Your task to perform on an android device: change the clock display to digital Image 0: 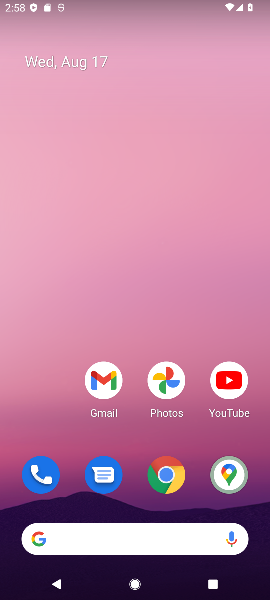
Step 0: drag from (127, 504) to (38, 12)
Your task to perform on an android device: change the clock display to digital Image 1: 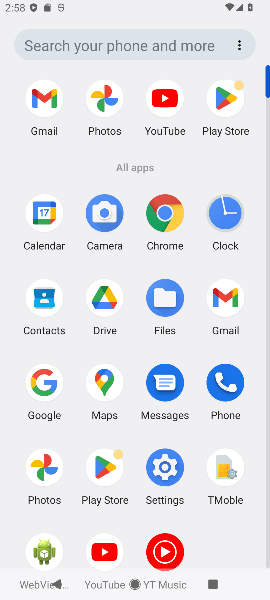
Step 1: click (225, 205)
Your task to perform on an android device: change the clock display to digital Image 2: 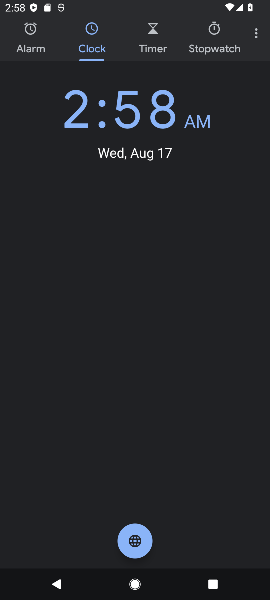
Step 2: click (252, 31)
Your task to perform on an android device: change the clock display to digital Image 3: 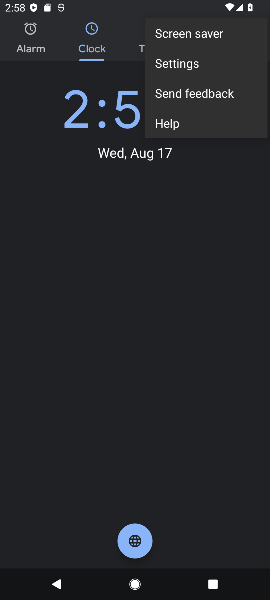
Step 3: click (198, 59)
Your task to perform on an android device: change the clock display to digital Image 4: 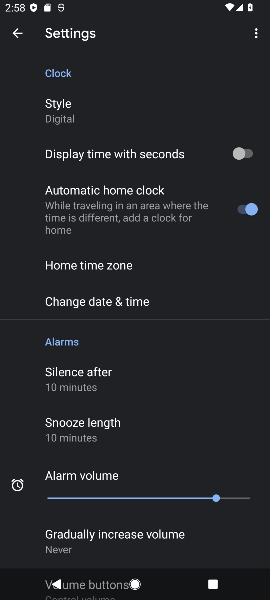
Step 4: click (83, 98)
Your task to perform on an android device: change the clock display to digital Image 5: 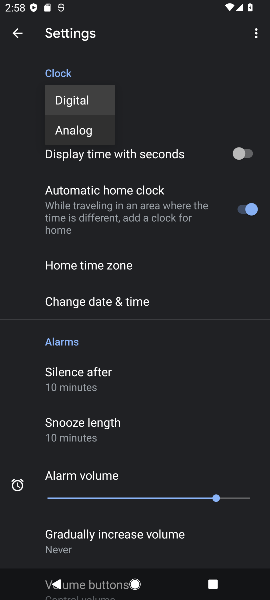
Step 5: click (83, 98)
Your task to perform on an android device: change the clock display to digital Image 6: 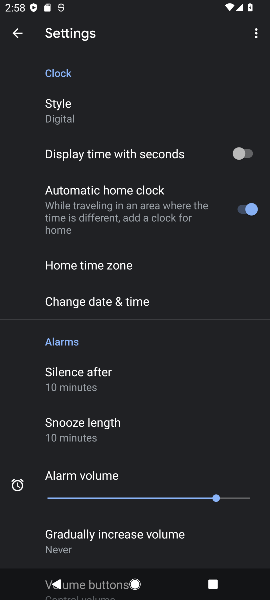
Step 6: task complete